Your task to perform on an android device: show emergency info Image 0: 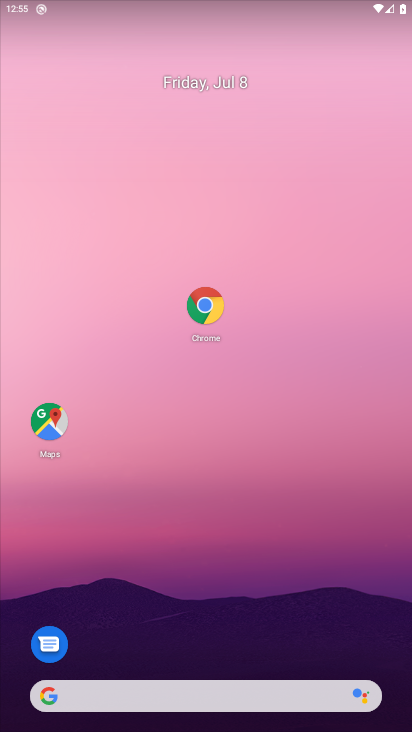
Step 0: drag from (173, 681) to (170, 280)
Your task to perform on an android device: show emergency info Image 1: 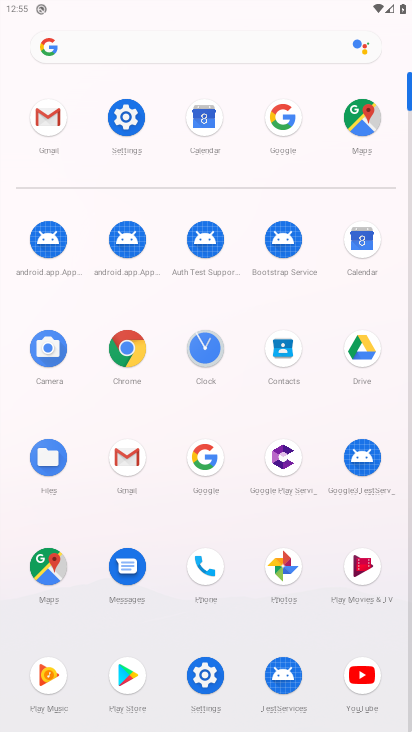
Step 1: click (123, 120)
Your task to perform on an android device: show emergency info Image 2: 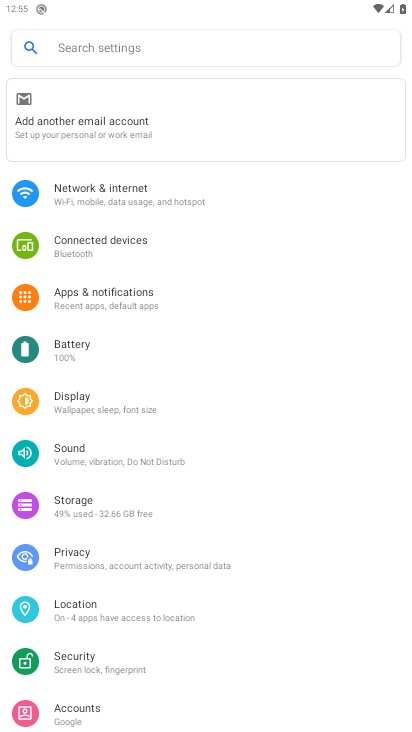
Step 2: drag from (149, 702) to (161, 341)
Your task to perform on an android device: show emergency info Image 3: 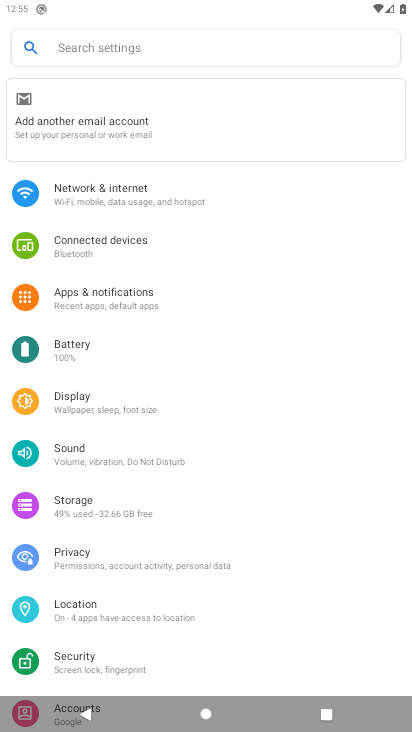
Step 3: drag from (152, 638) to (164, 320)
Your task to perform on an android device: show emergency info Image 4: 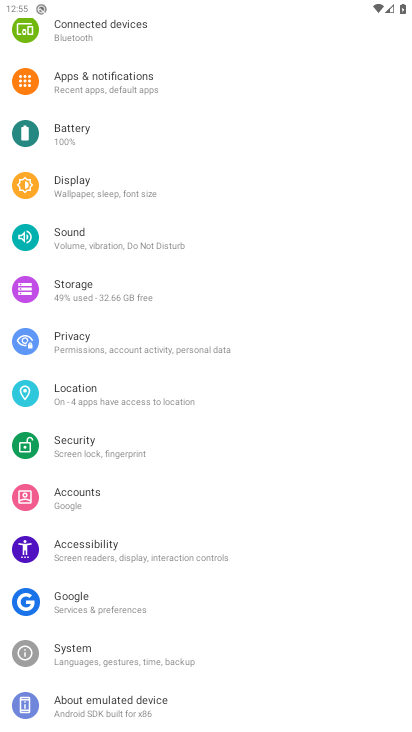
Step 4: click (87, 706)
Your task to perform on an android device: show emergency info Image 5: 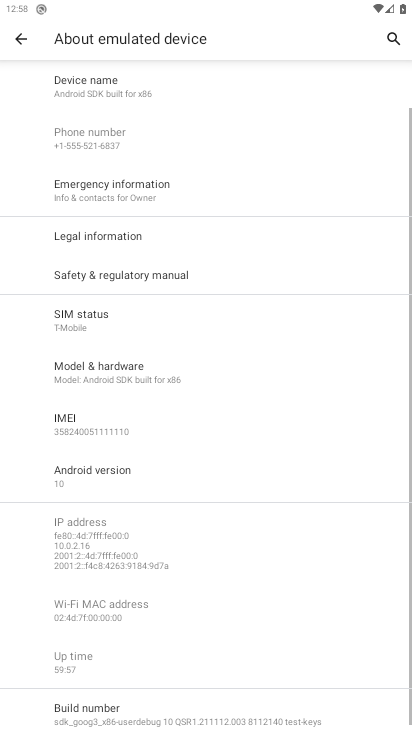
Step 5: click (108, 189)
Your task to perform on an android device: show emergency info Image 6: 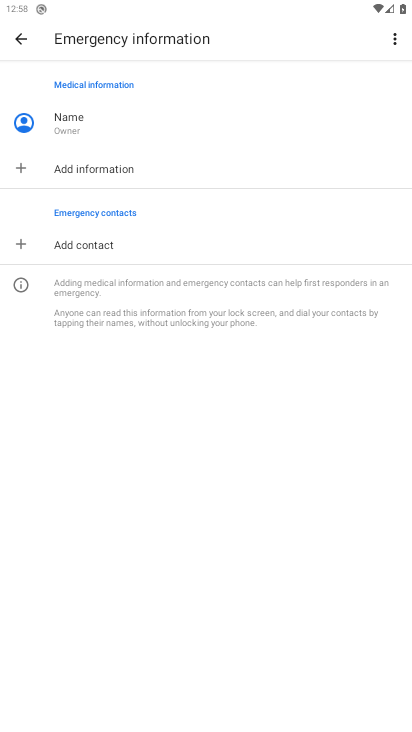
Step 6: task complete